Your task to perform on an android device: Go to Reddit.com Image 0: 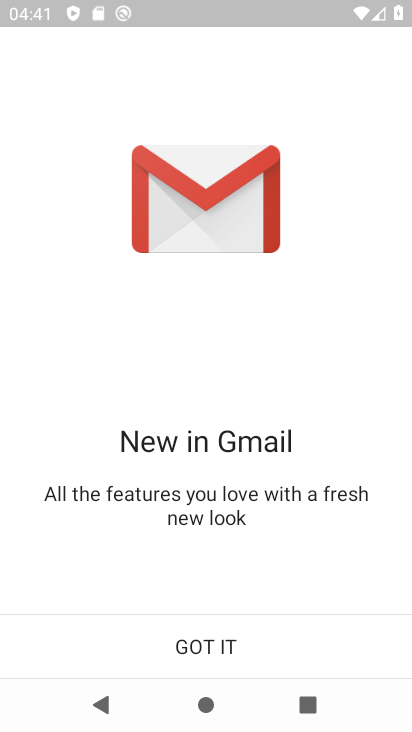
Step 0: press home button
Your task to perform on an android device: Go to Reddit.com Image 1: 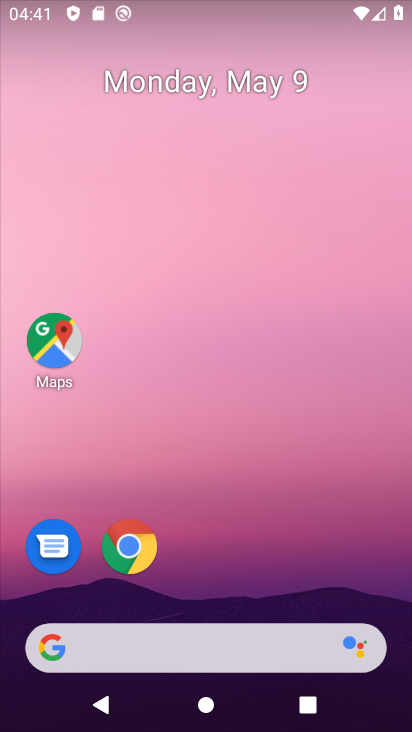
Step 1: drag from (191, 587) to (237, 110)
Your task to perform on an android device: Go to Reddit.com Image 2: 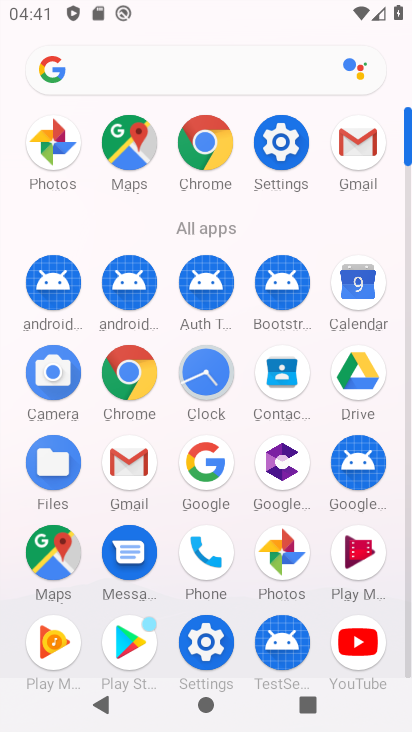
Step 2: click (210, 155)
Your task to perform on an android device: Go to Reddit.com Image 3: 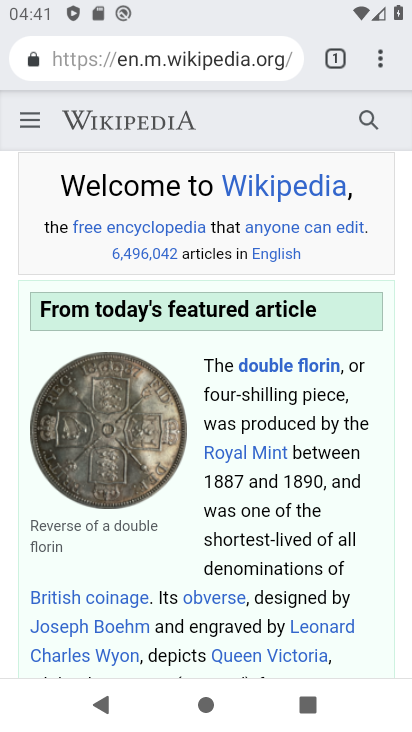
Step 3: click (220, 54)
Your task to perform on an android device: Go to Reddit.com Image 4: 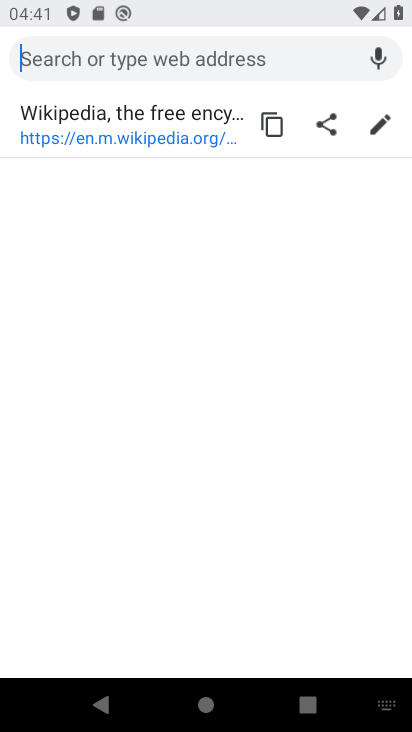
Step 4: type "Reddit.com"
Your task to perform on an android device: Go to Reddit.com Image 5: 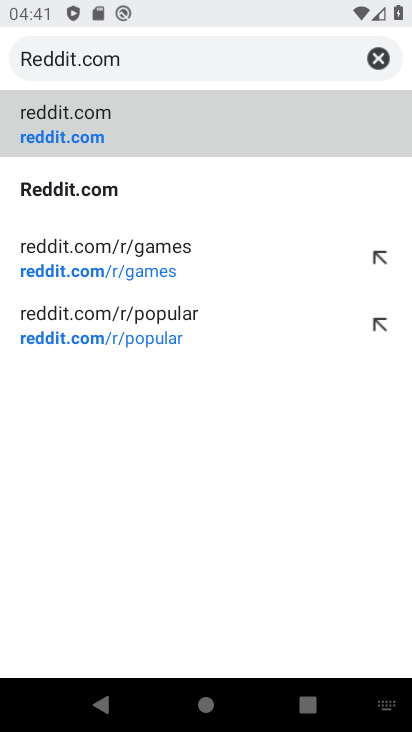
Step 5: click (112, 124)
Your task to perform on an android device: Go to Reddit.com Image 6: 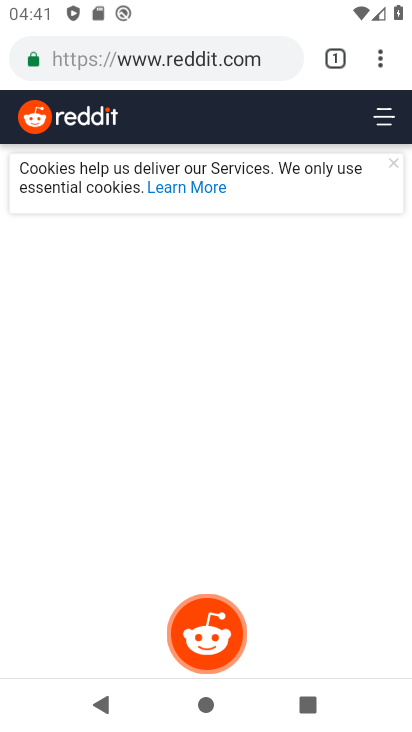
Step 6: task complete